Your task to perform on an android device: check android version Image 0: 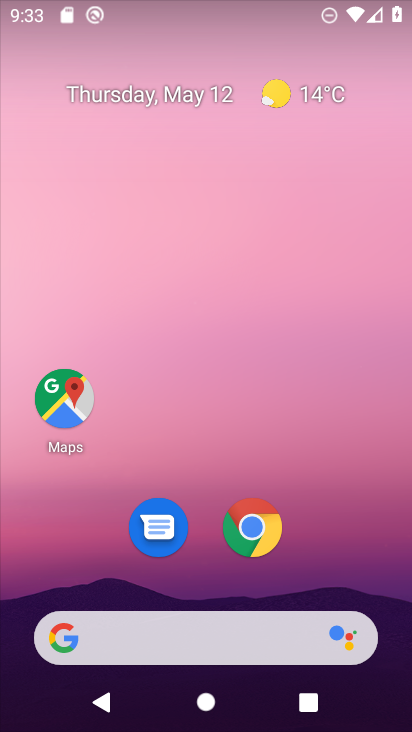
Step 0: drag from (408, 661) to (410, 596)
Your task to perform on an android device: check android version Image 1: 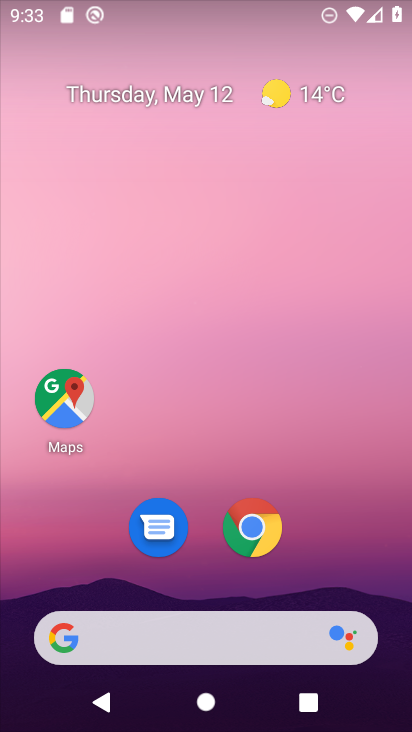
Step 1: drag from (355, 575) to (332, 38)
Your task to perform on an android device: check android version Image 2: 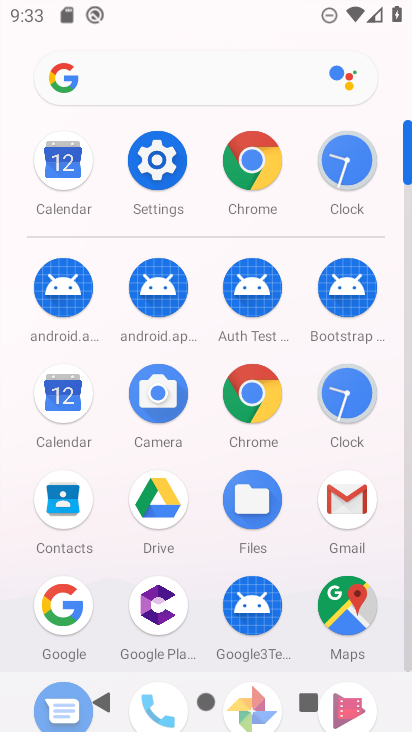
Step 2: click (177, 155)
Your task to perform on an android device: check android version Image 3: 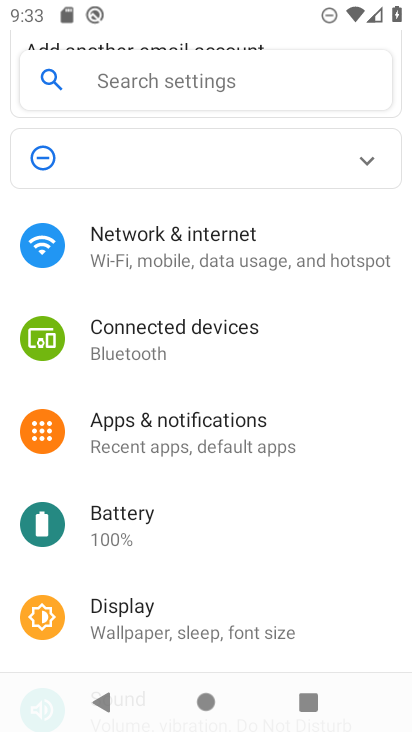
Step 3: drag from (199, 623) to (238, 257)
Your task to perform on an android device: check android version Image 4: 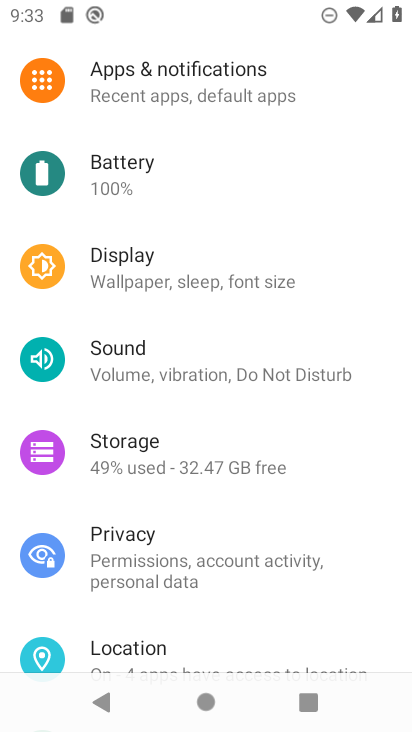
Step 4: drag from (239, 561) to (266, 255)
Your task to perform on an android device: check android version Image 5: 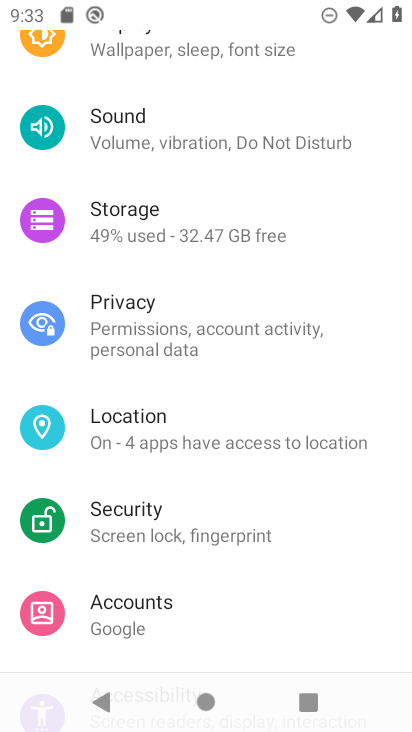
Step 5: drag from (224, 614) to (239, 377)
Your task to perform on an android device: check android version Image 6: 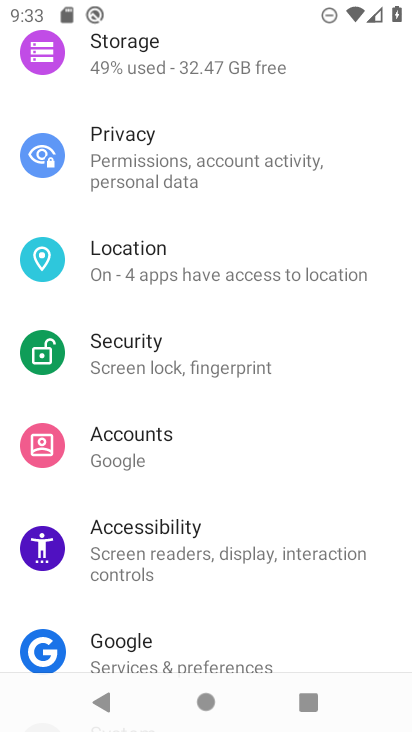
Step 6: drag from (206, 633) to (236, 328)
Your task to perform on an android device: check android version Image 7: 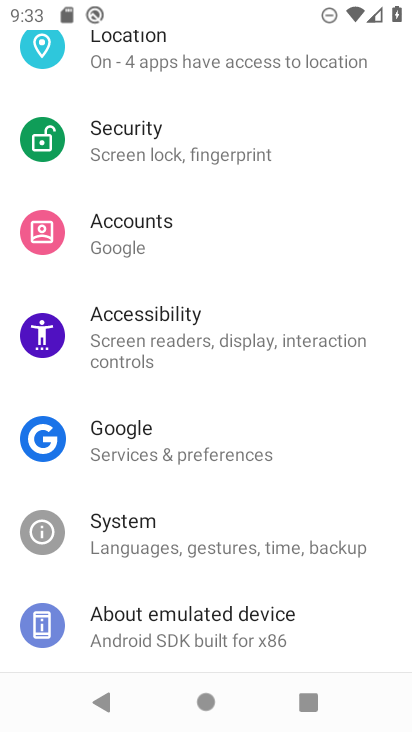
Step 7: click (205, 628)
Your task to perform on an android device: check android version Image 8: 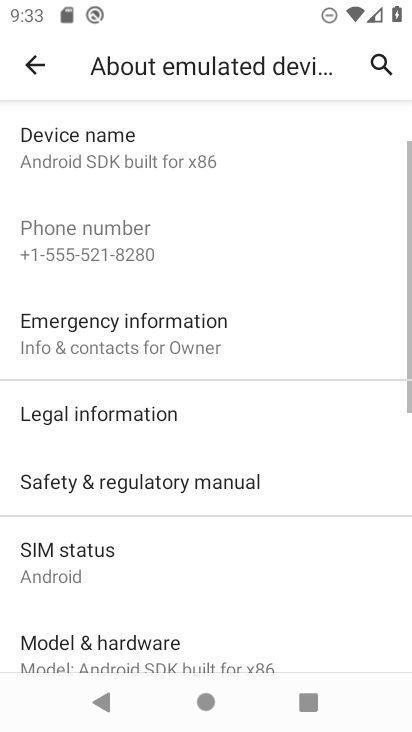
Step 8: drag from (187, 581) to (193, 253)
Your task to perform on an android device: check android version Image 9: 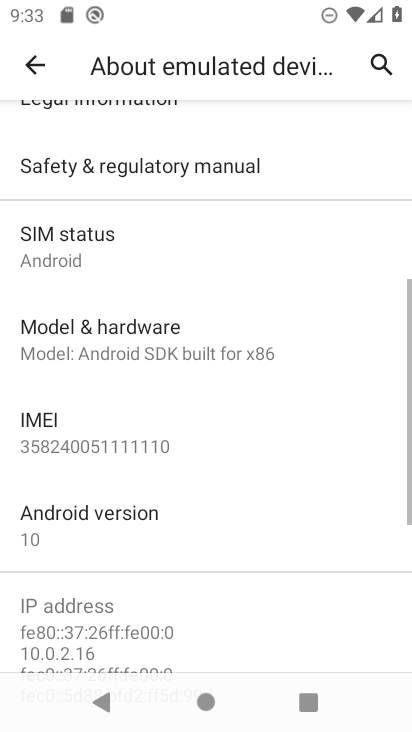
Step 9: click (102, 523)
Your task to perform on an android device: check android version Image 10: 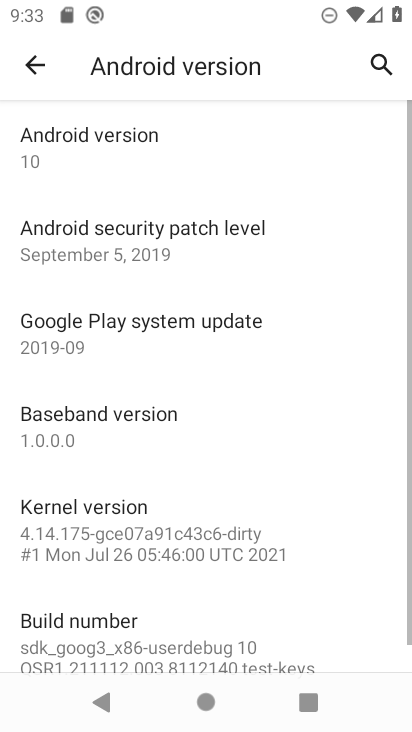
Step 10: task complete